Your task to perform on an android device: Add corsair k70 to the cart on target Image 0: 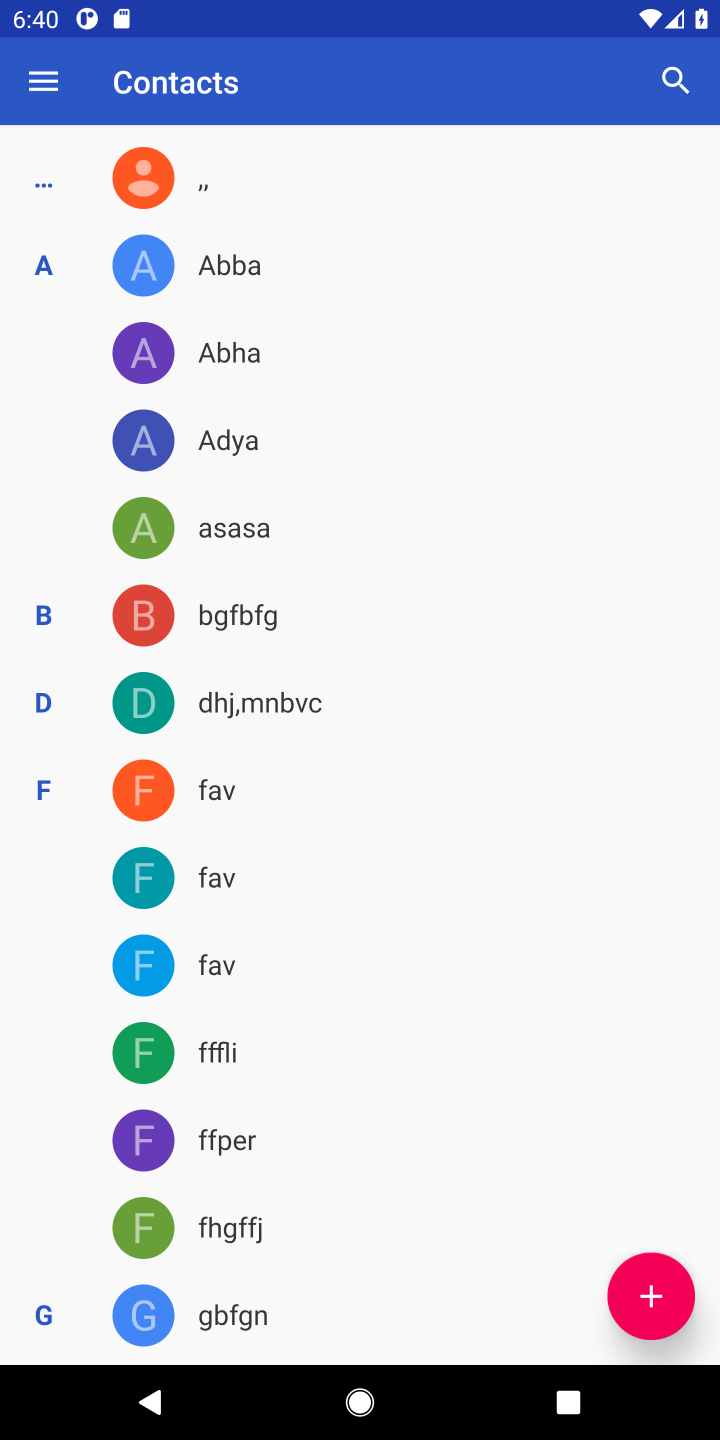
Step 0: press home button
Your task to perform on an android device: Add corsair k70 to the cart on target Image 1: 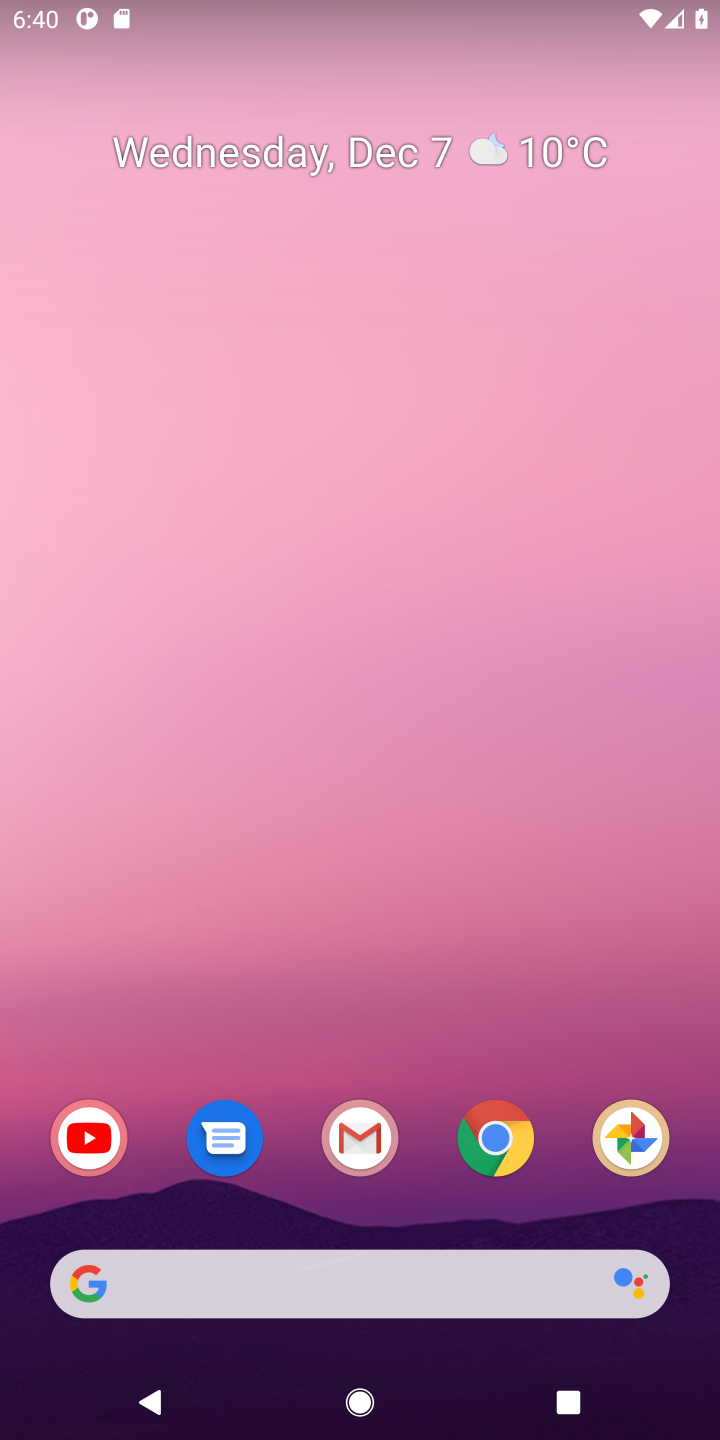
Step 1: click (193, 1278)
Your task to perform on an android device: Add corsair k70 to the cart on target Image 2: 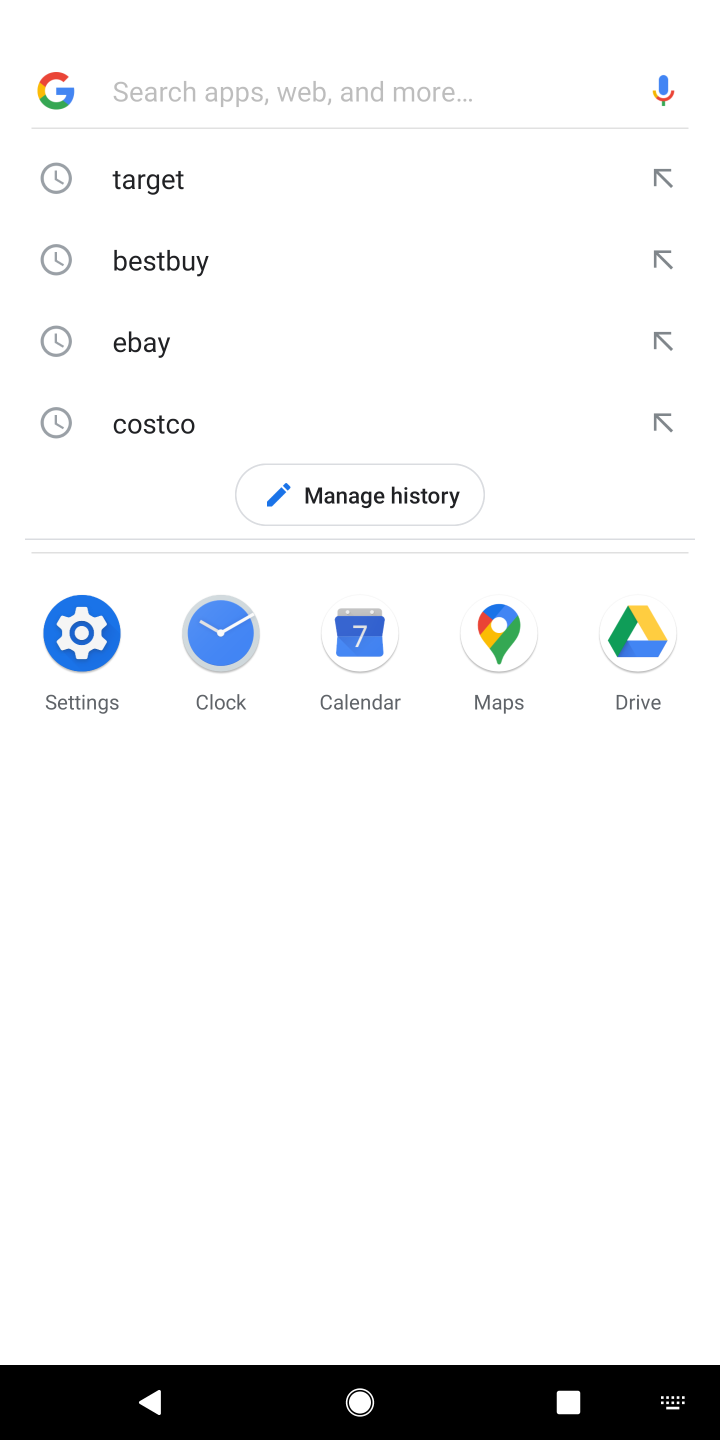
Step 2: click (154, 187)
Your task to perform on an android device: Add corsair k70 to the cart on target Image 3: 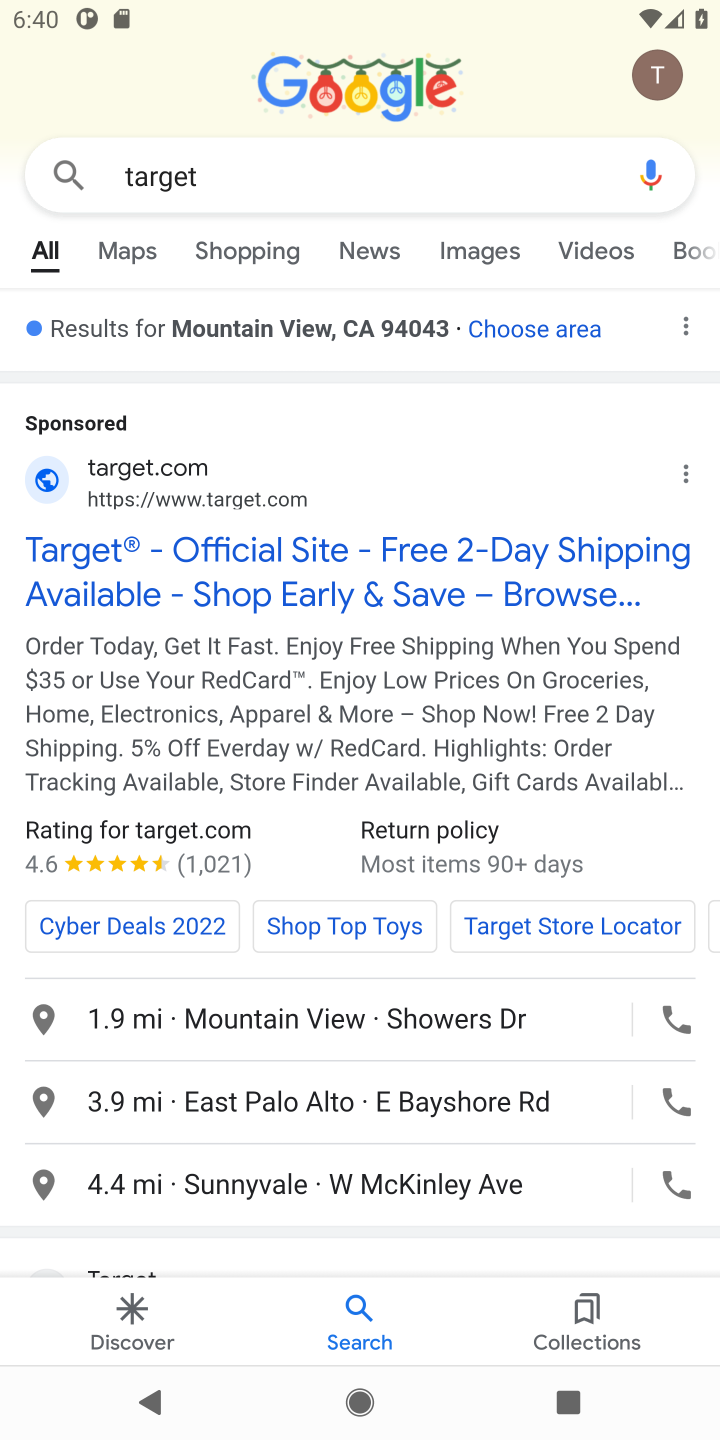
Step 3: click (432, 591)
Your task to perform on an android device: Add corsair k70 to the cart on target Image 4: 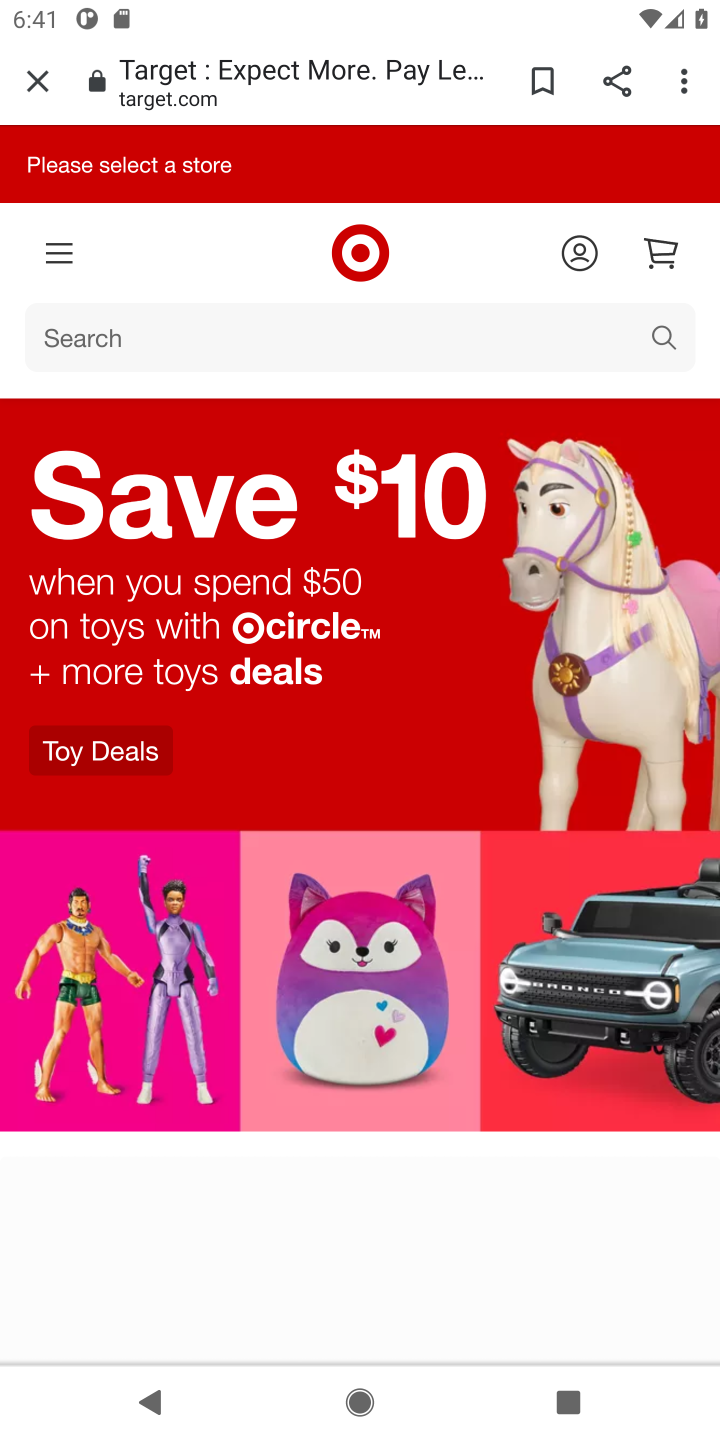
Step 4: click (279, 340)
Your task to perform on an android device: Add corsair k70 to the cart on target Image 5: 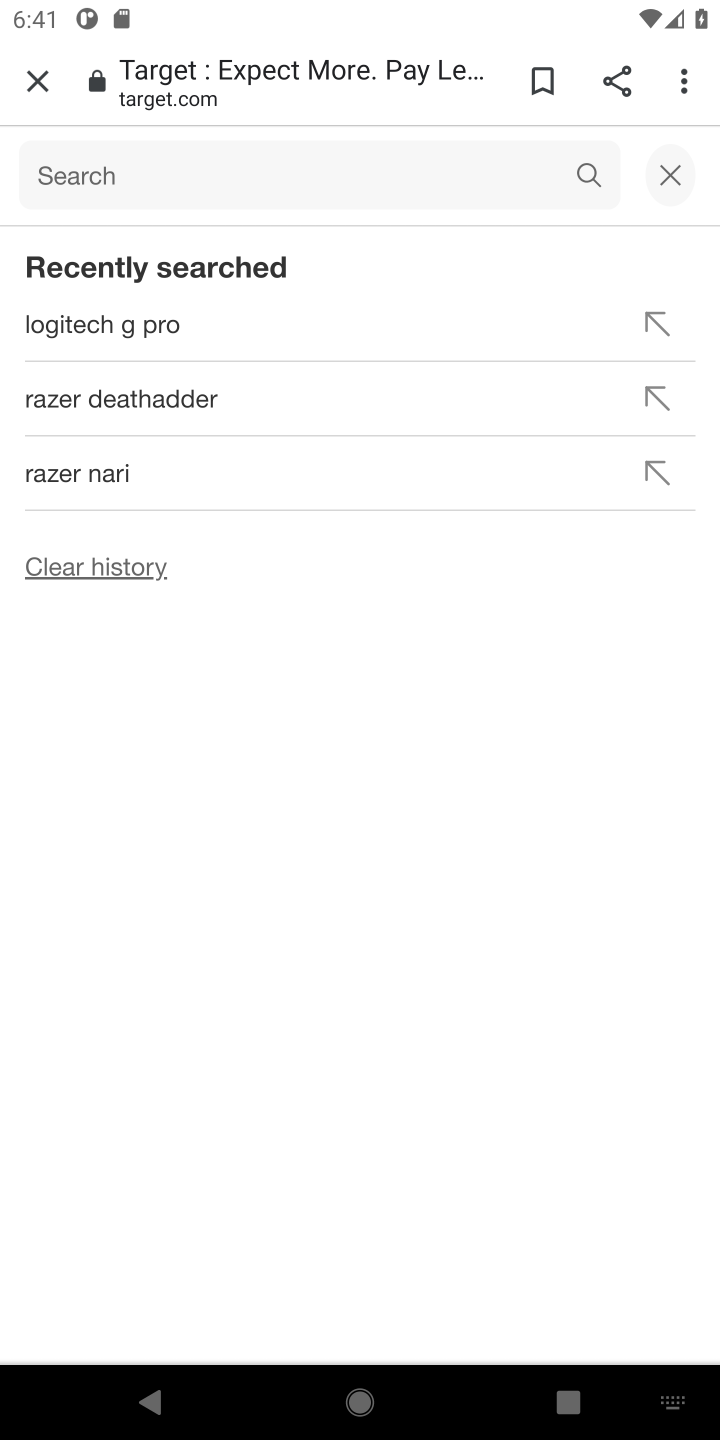
Step 5: type "corsair k70"
Your task to perform on an android device: Add corsair k70 to the cart on target Image 6: 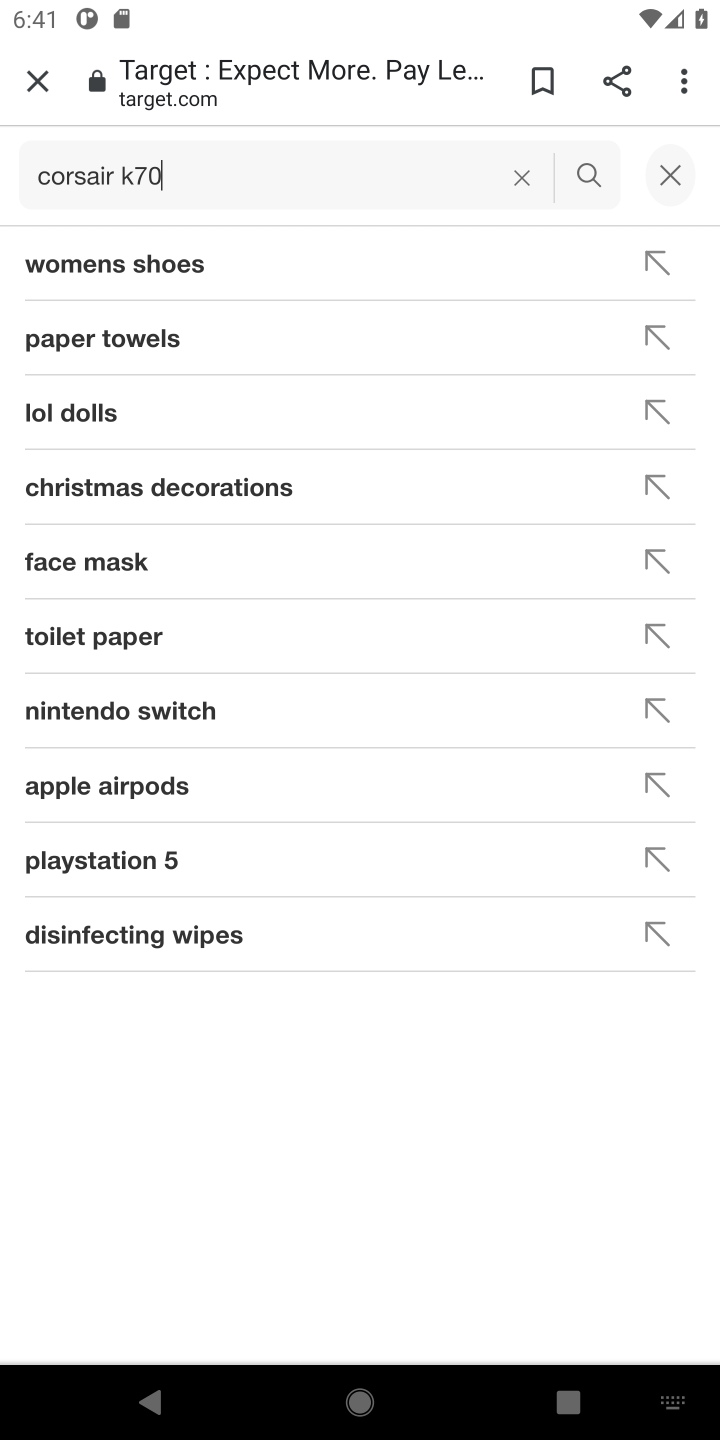
Step 6: press enter
Your task to perform on an android device: Add corsair k70 to the cart on target Image 7: 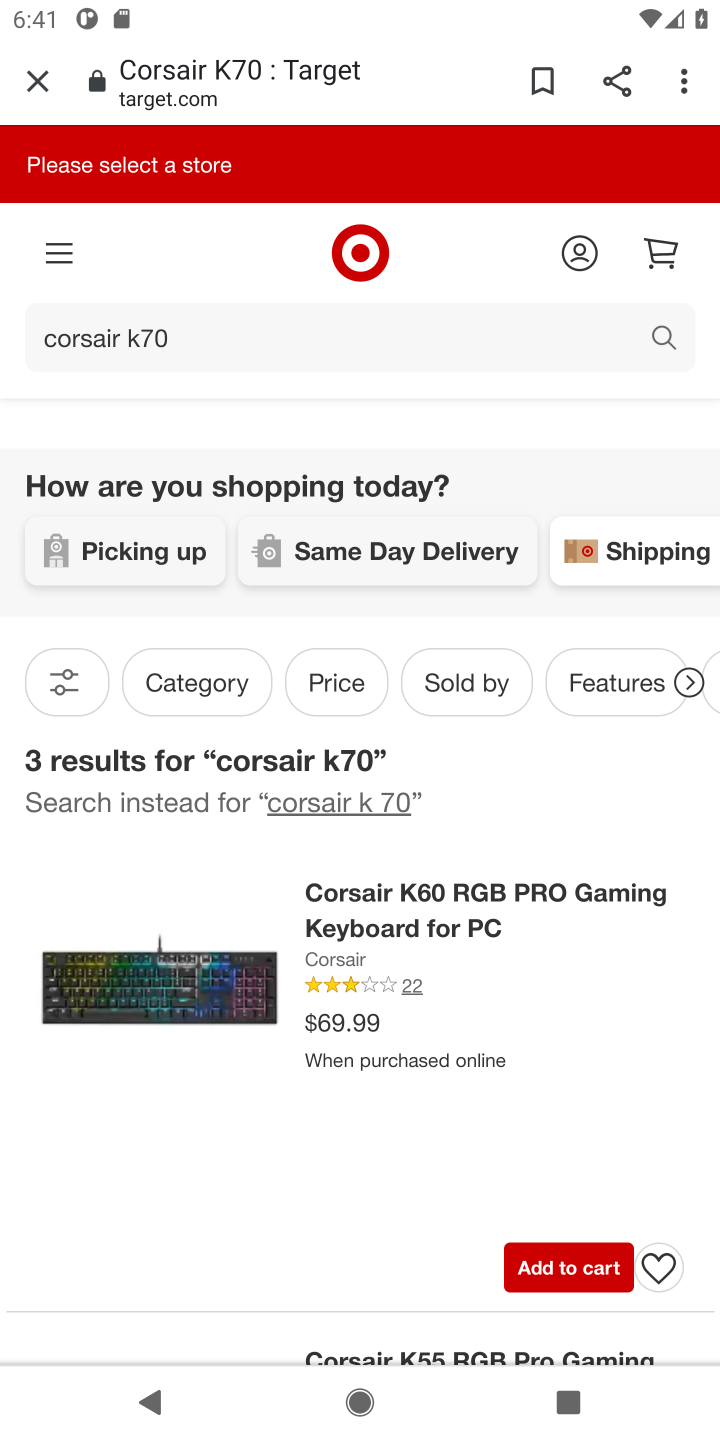
Step 7: task complete